Your task to perform on an android device: turn off smart reply in the gmail app Image 0: 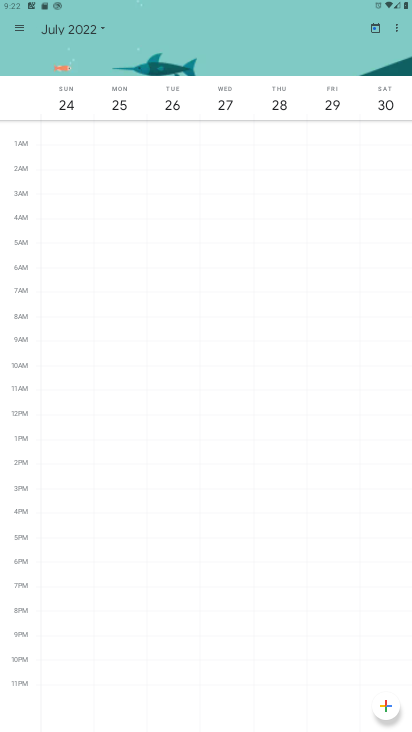
Step 0: press home button
Your task to perform on an android device: turn off smart reply in the gmail app Image 1: 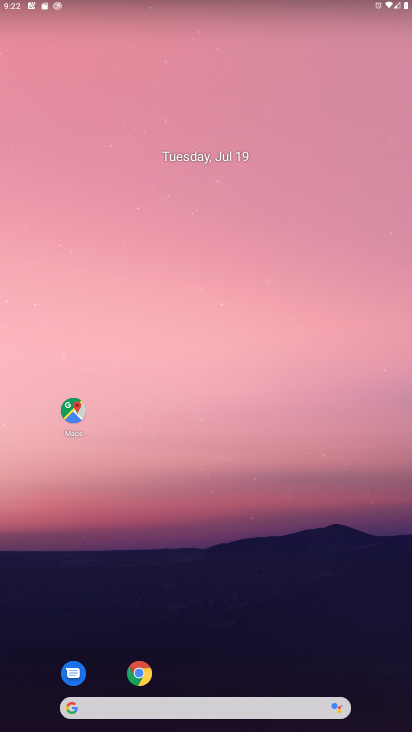
Step 1: drag from (363, 666) to (314, 186)
Your task to perform on an android device: turn off smart reply in the gmail app Image 2: 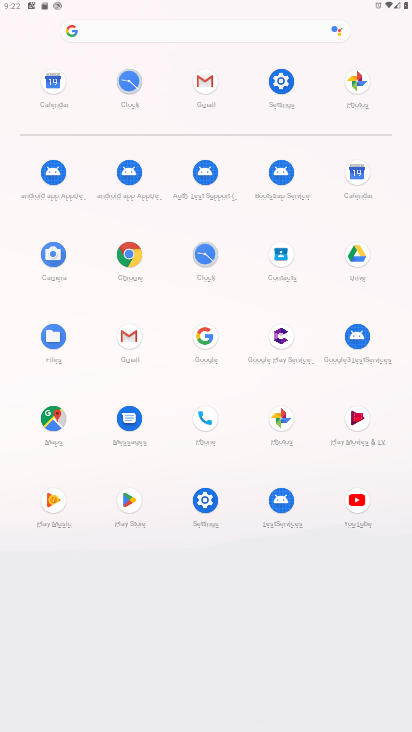
Step 2: click (125, 336)
Your task to perform on an android device: turn off smart reply in the gmail app Image 3: 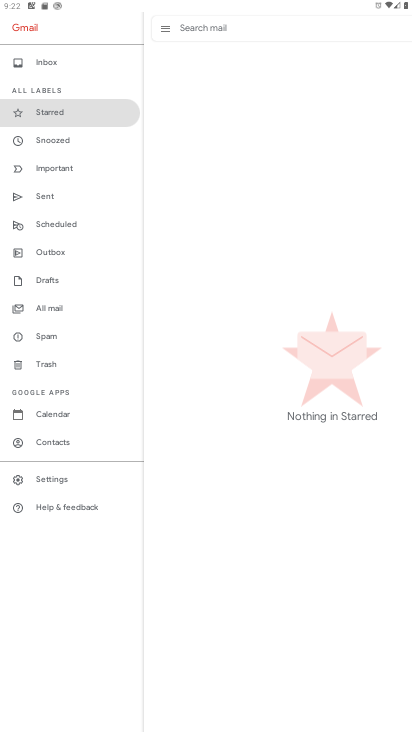
Step 3: click (56, 483)
Your task to perform on an android device: turn off smart reply in the gmail app Image 4: 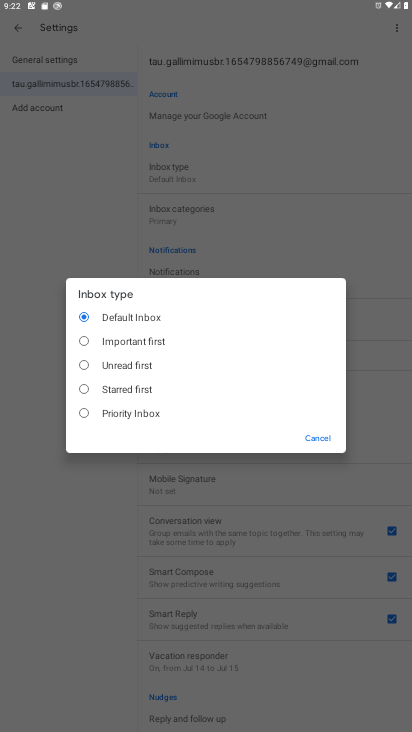
Step 4: click (314, 438)
Your task to perform on an android device: turn off smart reply in the gmail app Image 5: 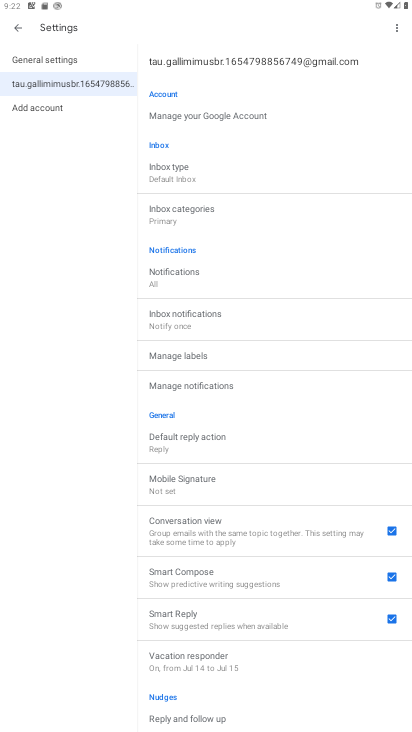
Step 5: click (392, 619)
Your task to perform on an android device: turn off smart reply in the gmail app Image 6: 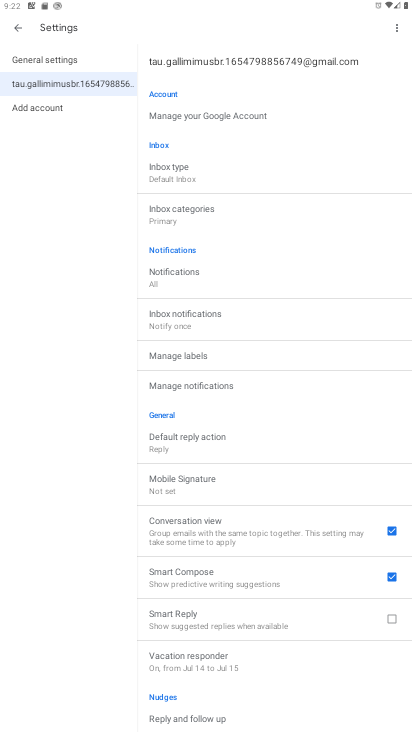
Step 6: task complete